Your task to perform on an android device: Open maps Image 0: 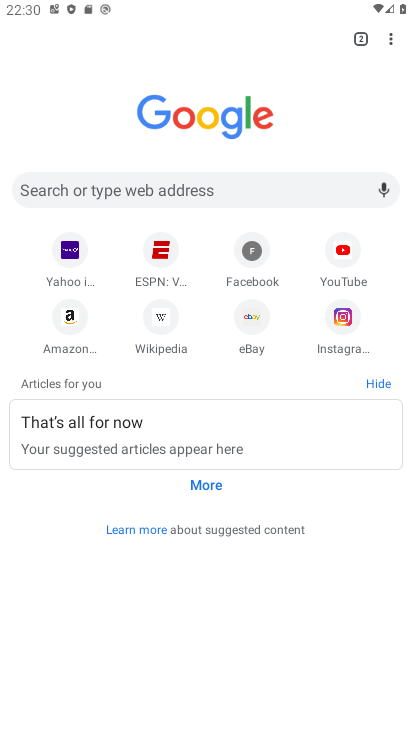
Step 0: press back button
Your task to perform on an android device: Open maps Image 1: 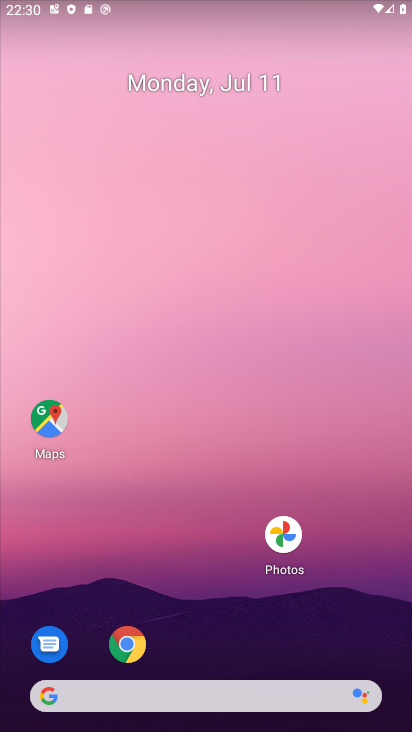
Step 1: drag from (206, 548) to (118, 175)
Your task to perform on an android device: Open maps Image 2: 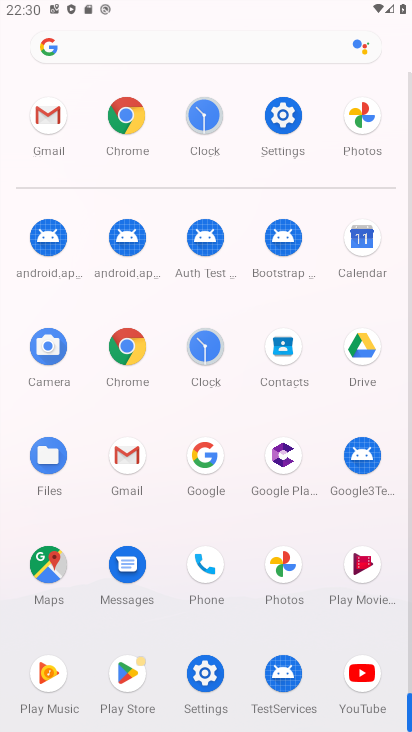
Step 2: click (51, 569)
Your task to perform on an android device: Open maps Image 3: 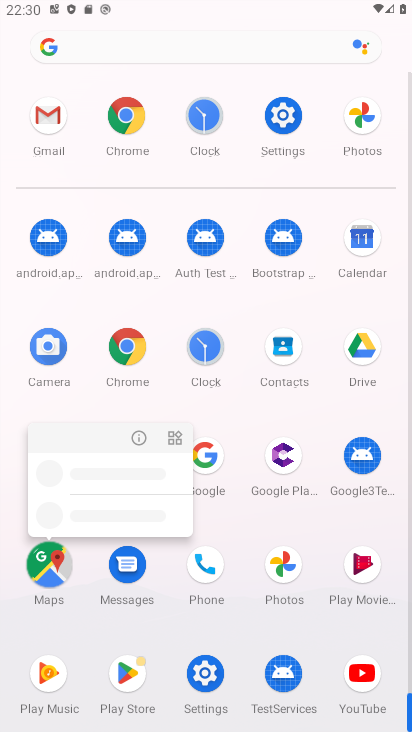
Step 3: click (52, 570)
Your task to perform on an android device: Open maps Image 4: 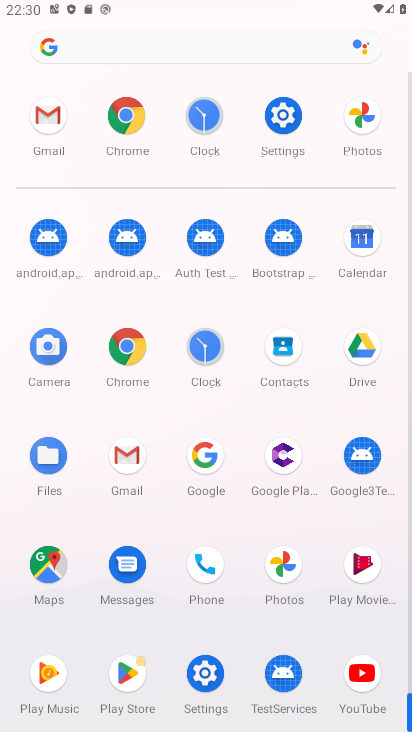
Step 4: click (53, 571)
Your task to perform on an android device: Open maps Image 5: 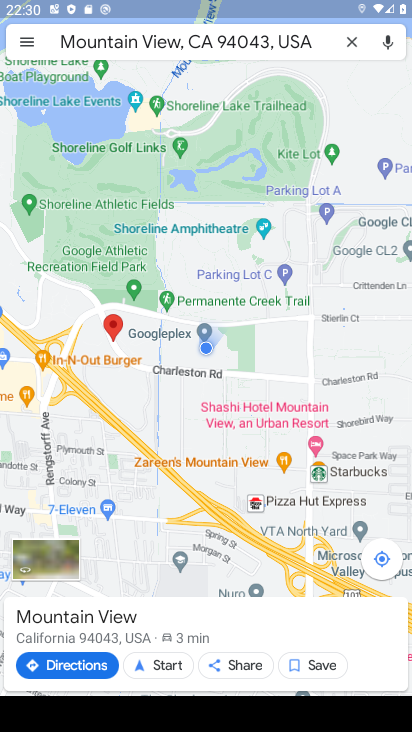
Step 5: task complete